Your task to perform on an android device: add a label to a message in the gmail app Image 0: 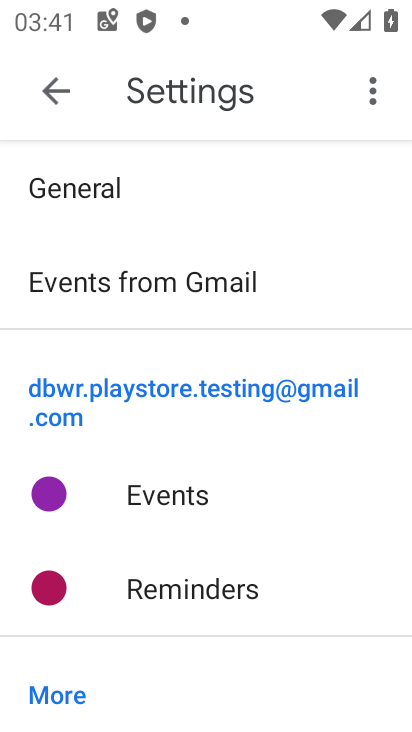
Step 0: press home button
Your task to perform on an android device: add a label to a message in the gmail app Image 1: 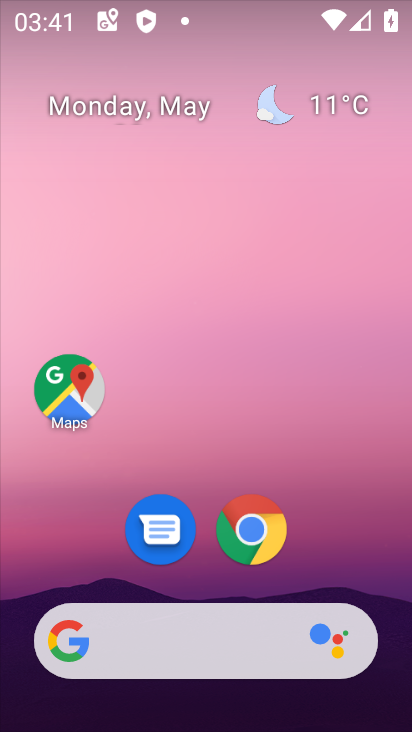
Step 1: drag from (354, 516) to (160, 77)
Your task to perform on an android device: add a label to a message in the gmail app Image 2: 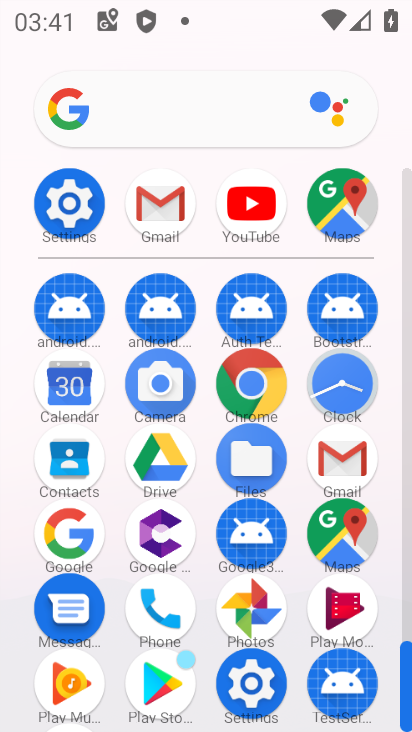
Step 2: click (163, 207)
Your task to perform on an android device: add a label to a message in the gmail app Image 3: 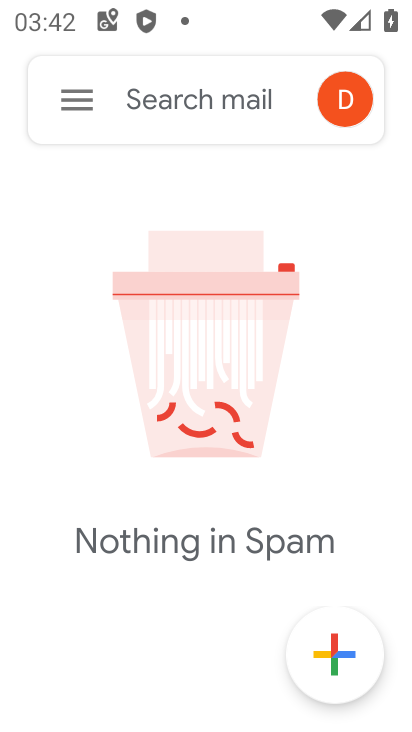
Step 3: click (65, 88)
Your task to perform on an android device: add a label to a message in the gmail app Image 4: 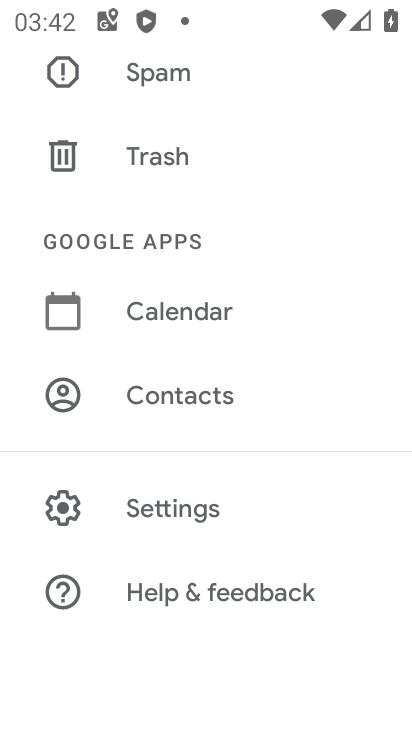
Step 4: drag from (162, 236) to (202, 640)
Your task to perform on an android device: add a label to a message in the gmail app Image 5: 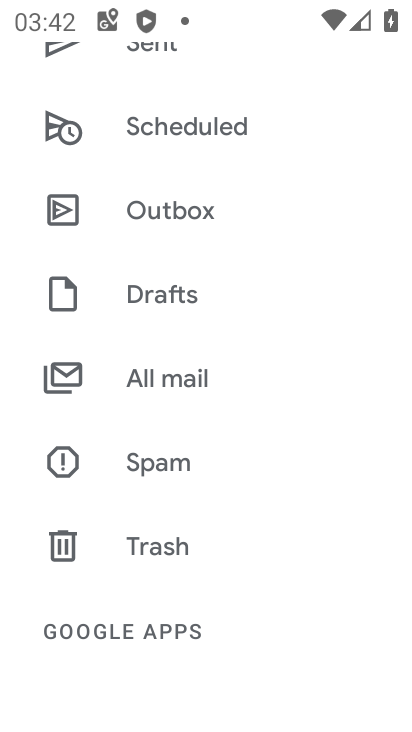
Step 5: click (171, 392)
Your task to perform on an android device: add a label to a message in the gmail app Image 6: 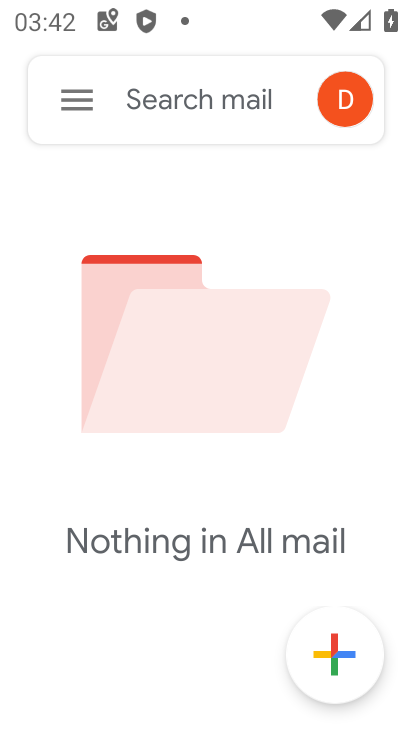
Step 6: task complete